Your task to perform on an android device: Go to calendar. Show me events next week Image 0: 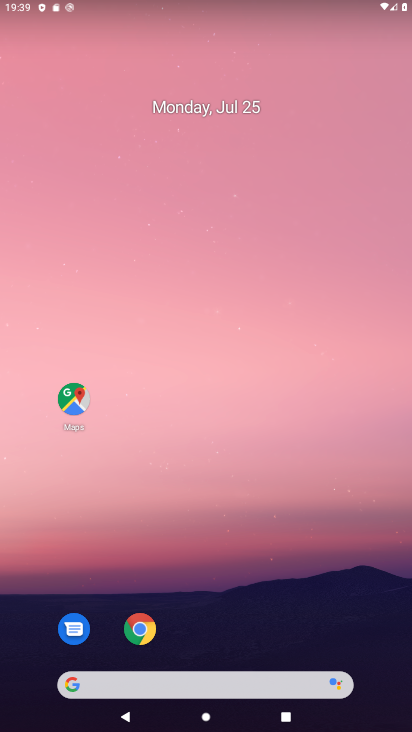
Step 0: drag from (15, 705) to (185, 198)
Your task to perform on an android device: Go to calendar. Show me events next week Image 1: 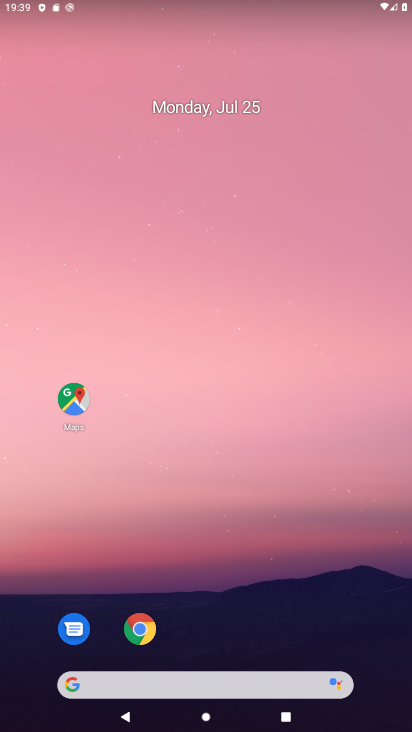
Step 1: drag from (37, 677) to (156, 70)
Your task to perform on an android device: Go to calendar. Show me events next week Image 2: 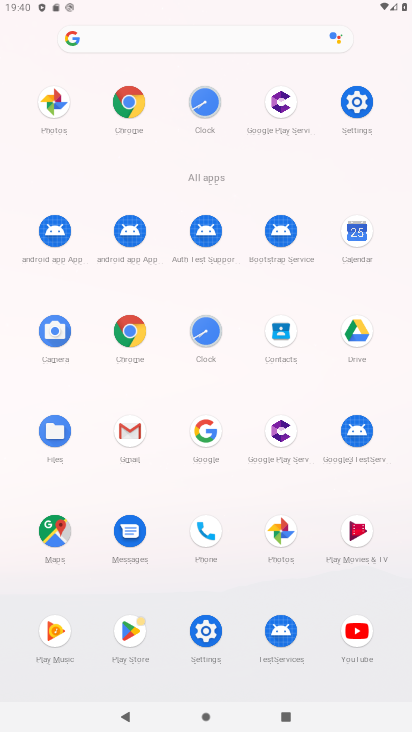
Step 2: click (362, 238)
Your task to perform on an android device: Go to calendar. Show me events next week Image 3: 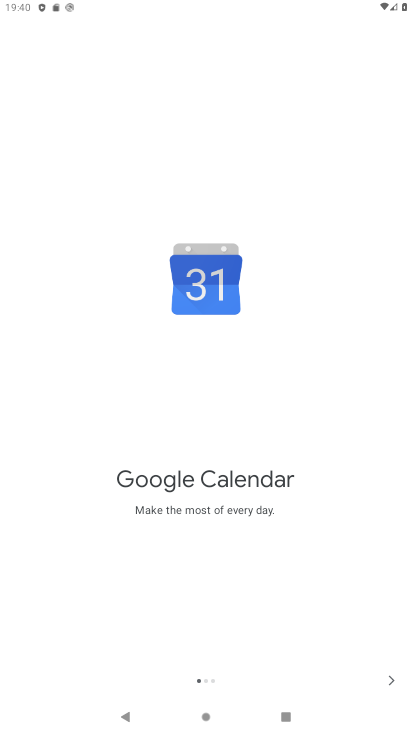
Step 3: click (388, 690)
Your task to perform on an android device: Go to calendar. Show me events next week Image 4: 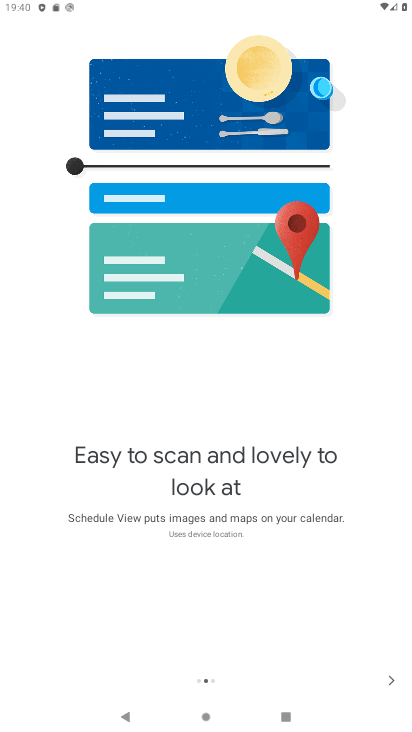
Step 4: click (392, 678)
Your task to perform on an android device: Go to calendar. Show me events next week Image 5: 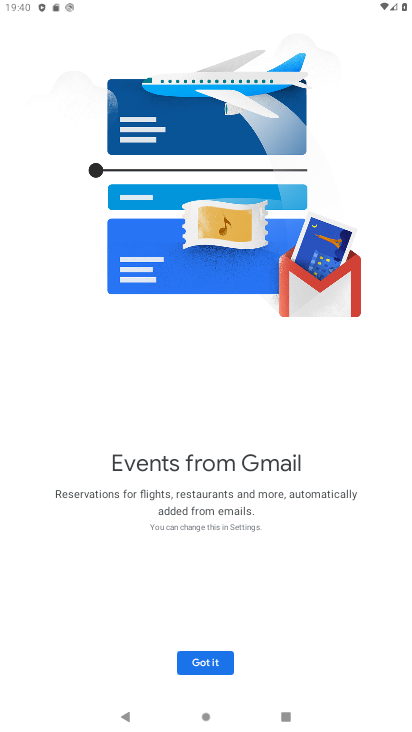
Step 5: click (201, 660)
Your task to perform on an android device: Go to calendar. Show me events next week Image 6: 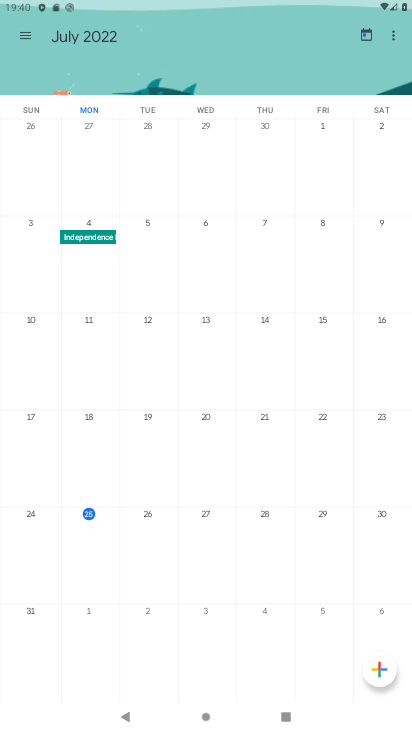
Step 6: task complete